Your task to perform on an android device: Go to Maps Image 0: 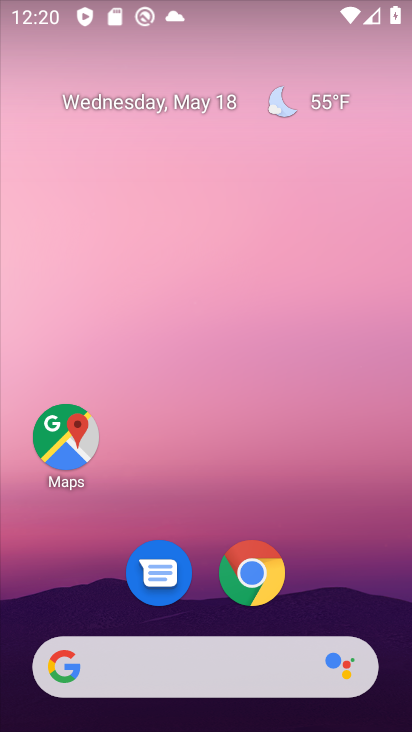
Step 0: drag from (336, 593) to (336, 124)
Your task to perform on an android device: Go to Maps Image 1: 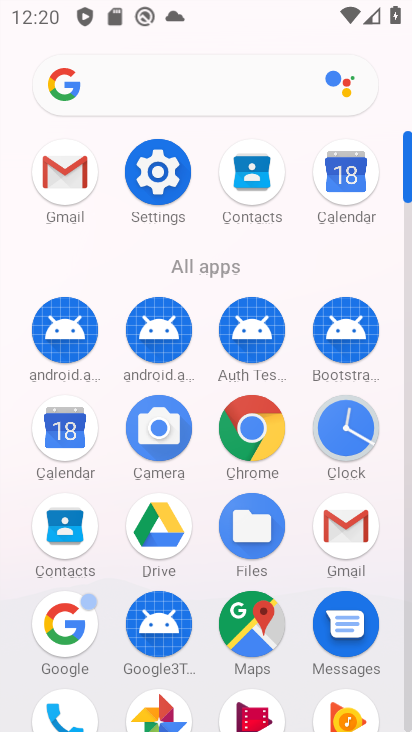
Step 1: click (237, 635)
Your task to perform on an android device: Go to Maps Image 2: 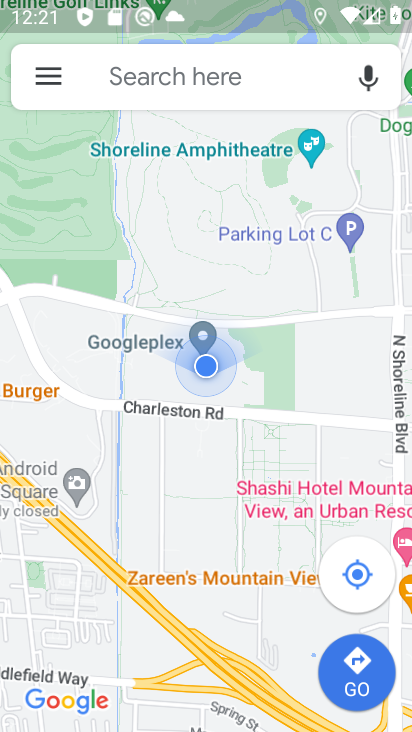
Step 2: task complete